Your task to perform on an android device: clear all cookies in the chrome app Image 0: 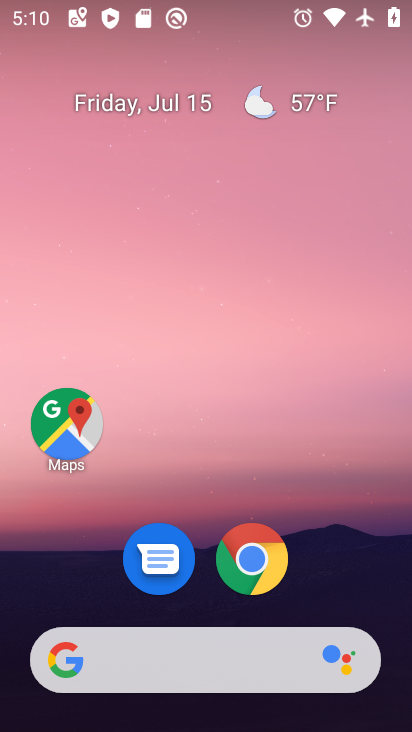
Step 0: click (258, 569)
Your task to perform on an android device: clear all cookies in the chrome app Image 1: 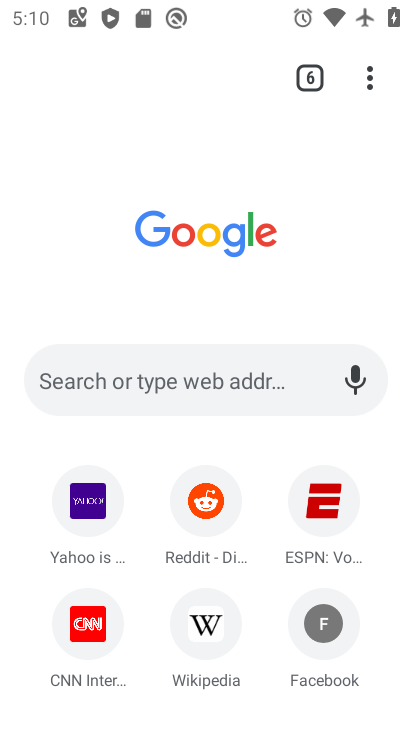
Step 1: drag from (364, 74) to (125, 402)
Your task to perform on an android device: clear all cookies in the chrome app Image 2: 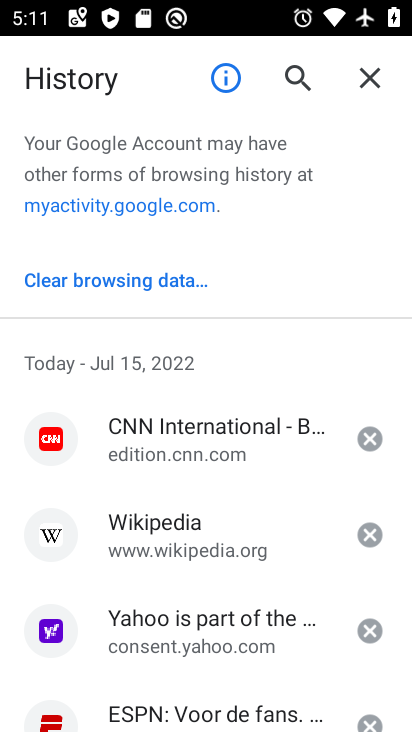
Step 2: click (153, 275)
Your task to perform on an android device: clear all cookies in the chrome app Image 3: 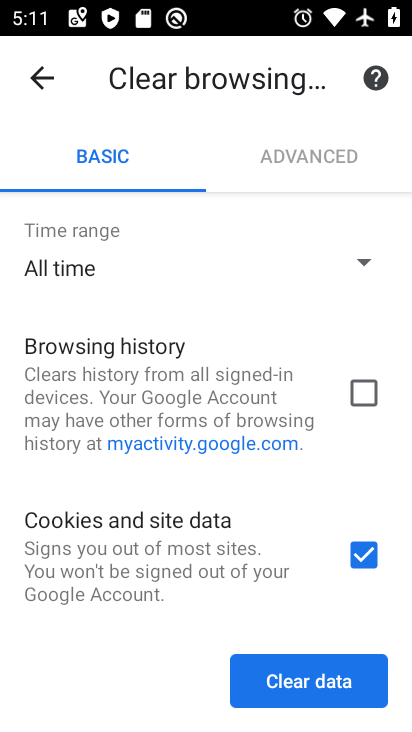
Step 3: click (270, 680)
Your task to perform on an android device: clear all cookies in the chrome app Image 4: 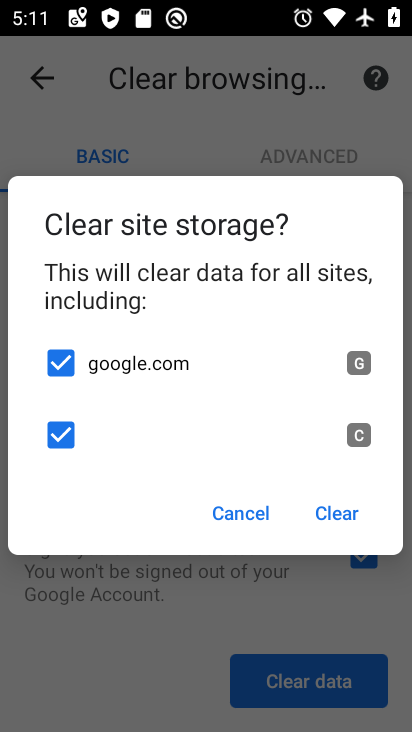
Step 4: click (329, 509)
Your task to perform on an android device: clear all cookies in the chrome app Image 5: 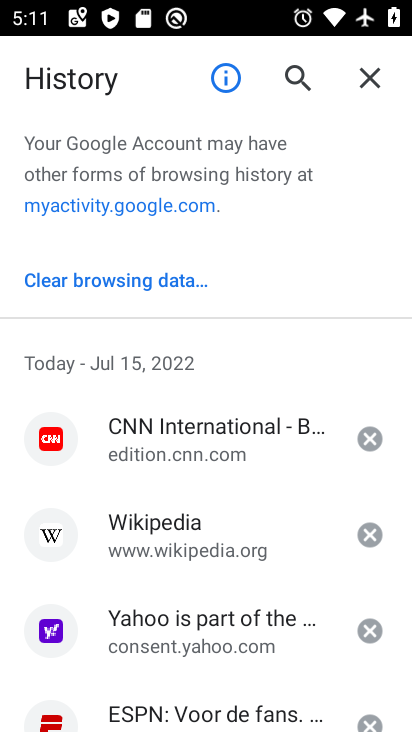
Step 5: task complete